Your task to perform on an android device: When is my next appointment? Image 0: 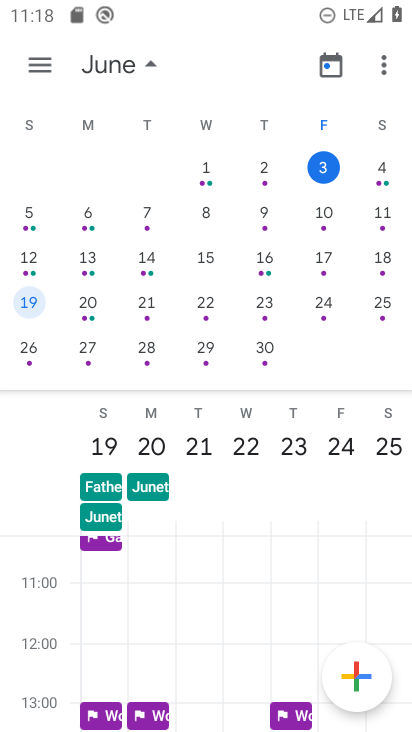
Step 0: press home button
Your task to perform on an android device: When is my next appointment? Image 1: 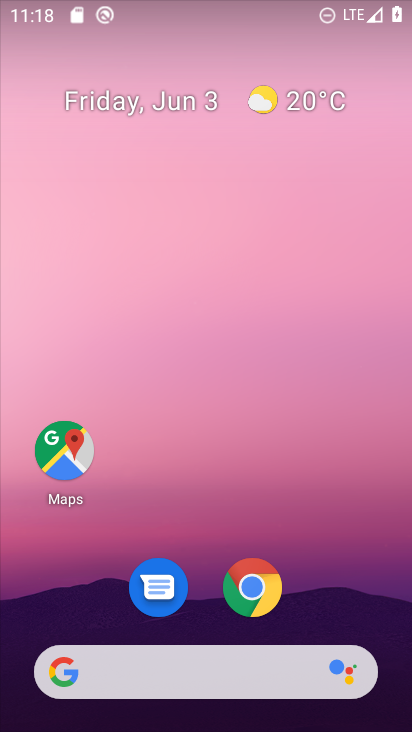
Step 1: click (126, 102)
Your task to perform on an android device: When is my next appointment? Image 2: 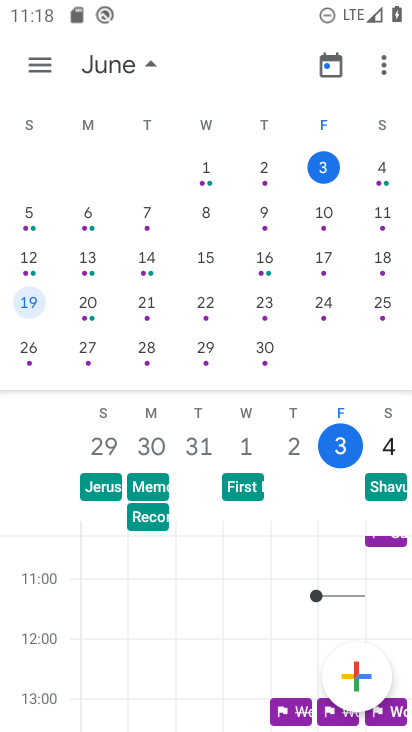
Step 2: task complete